Your task to perform on an android device: Empty the shopping cart on walmart.com. Search for "razer deathadder" on walmart.com, select the first entry, add it to the cart, then select checkout. Image 0: 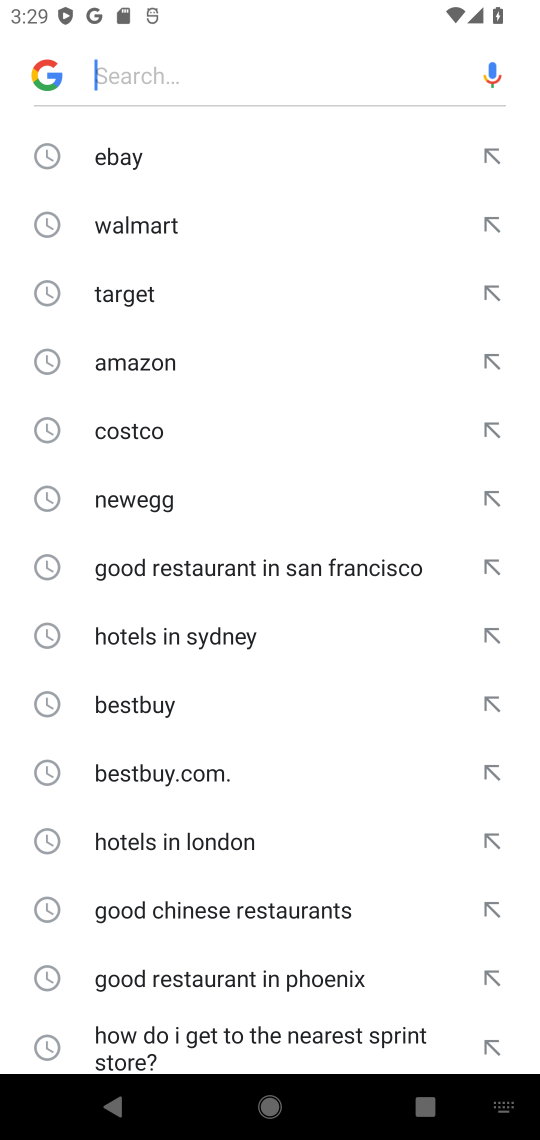
Step 0: press home button
Your task to perform on an android device: Empty the shopping cart on walmart.com. Search for "razer deathadder" on walmart.com, select the first entry, add it to the cart, then select checkout. Image 1: 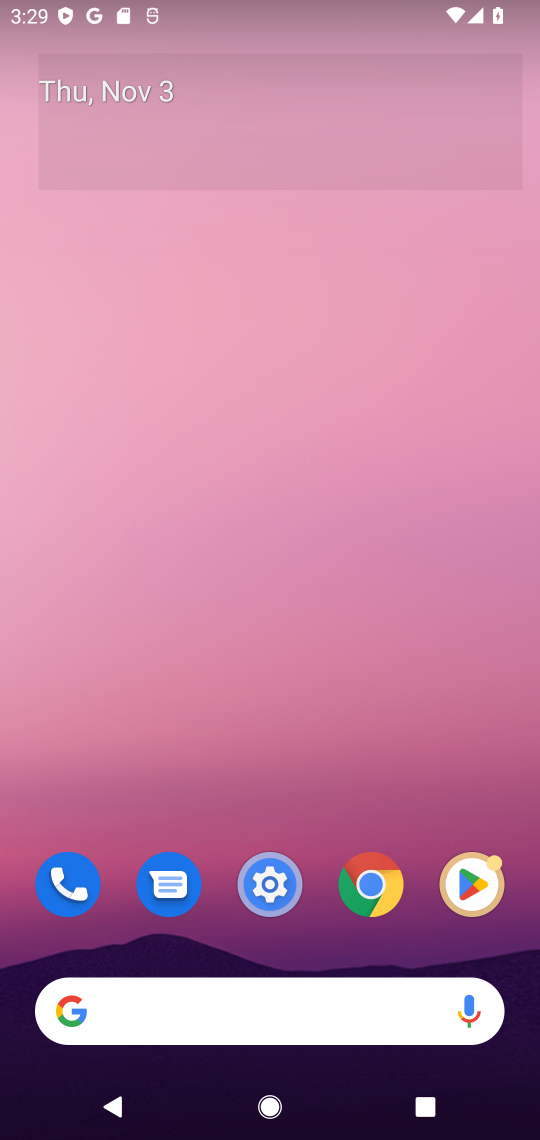
Step 1: click (117, 1009)
Your task to perform on an android device: Empty the shopping cart on walmart.com. Search for "razer deathadder" on walmart.com, select the first entry, add it to the cart, then select checkout. Image 2: 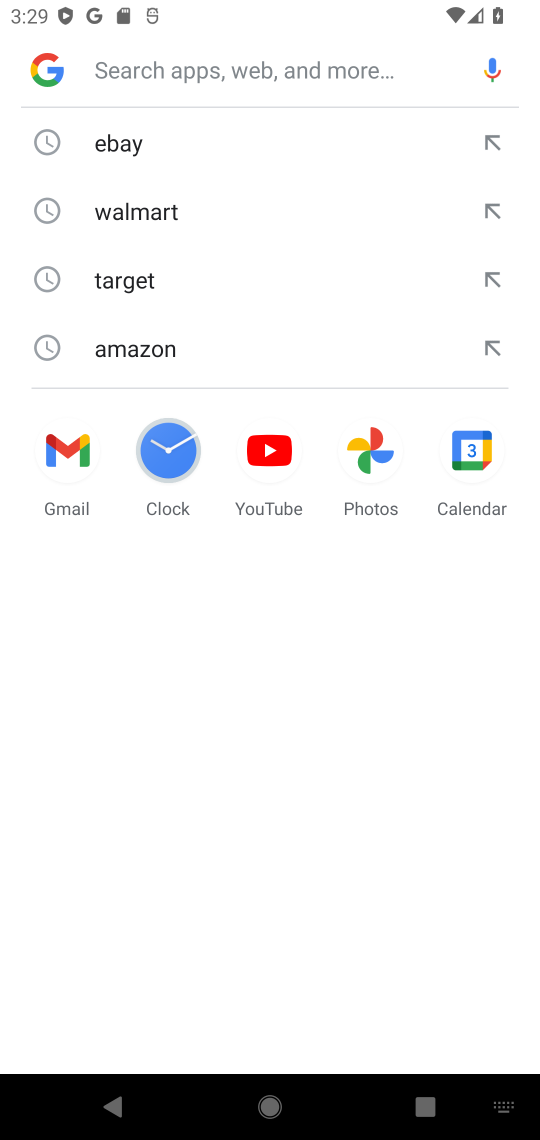
Step 2: type "walmart.com"
Your task to perform on an android device: Empty the shopping cart on walmart.com. Search for "razer deathadder" on walmart.com, select the first entry, add it to the cart, then select checkout. Image 3: 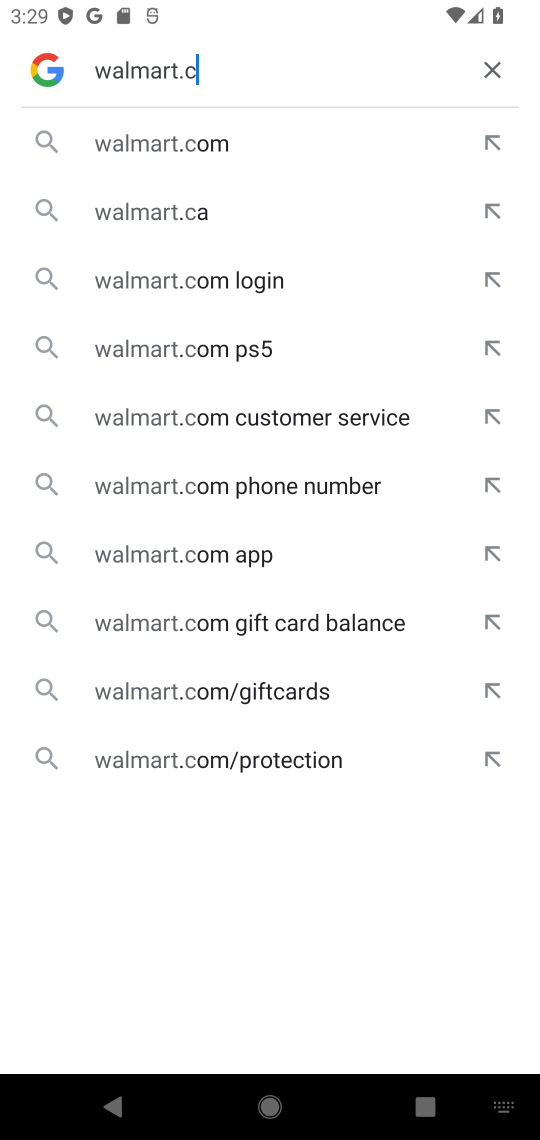
Step 3: press enter
Your task to perform on an android device: Empty the shopping cart on walmart.com. Search for "razer deathadder" on walmart.com, select the first entry, add it to the cart, then select checkout. Image 4: 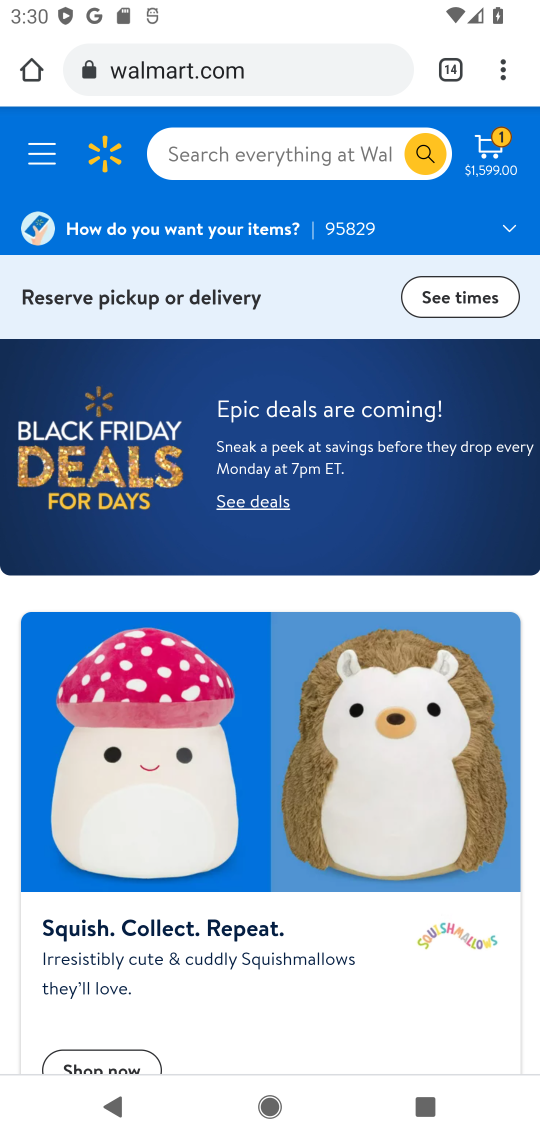
Step 4: click (492, 145)
Your task to perform on an android device: Empty the shopping cart on walmart.com. Search for "razer deathadder" on walmart.com, select the first entry, add it to the cart, then select checkout. Image 5: 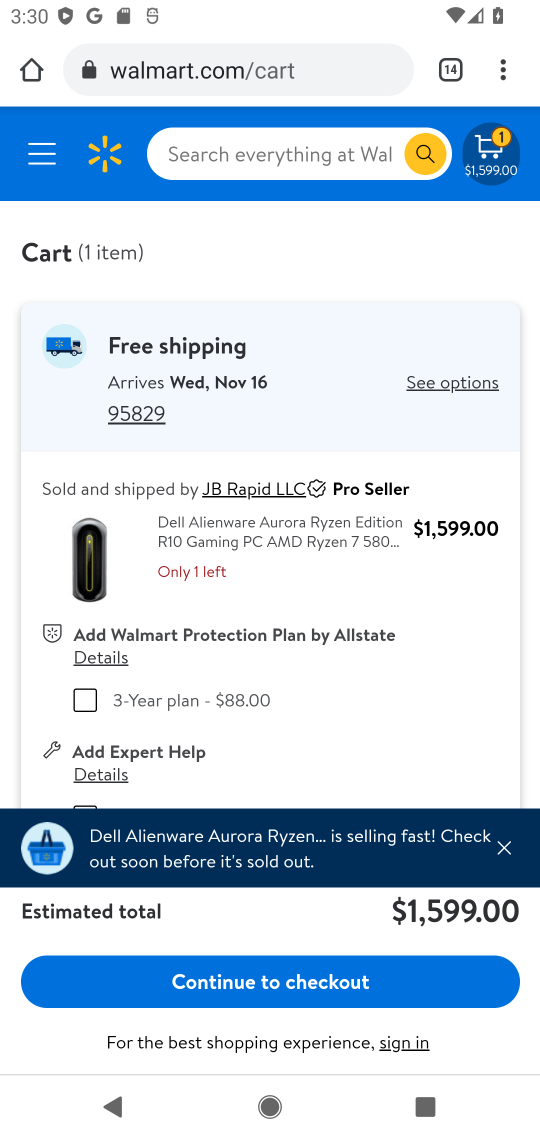
Step 5: drag from (409, 701) to (375, 355)
Your task to perform on an android device: Empty the shopping cart on walmart.com. Search for "razer deathadder" on walmart.com, select the first entry, add it to the cart, then select checkout. Image 6: 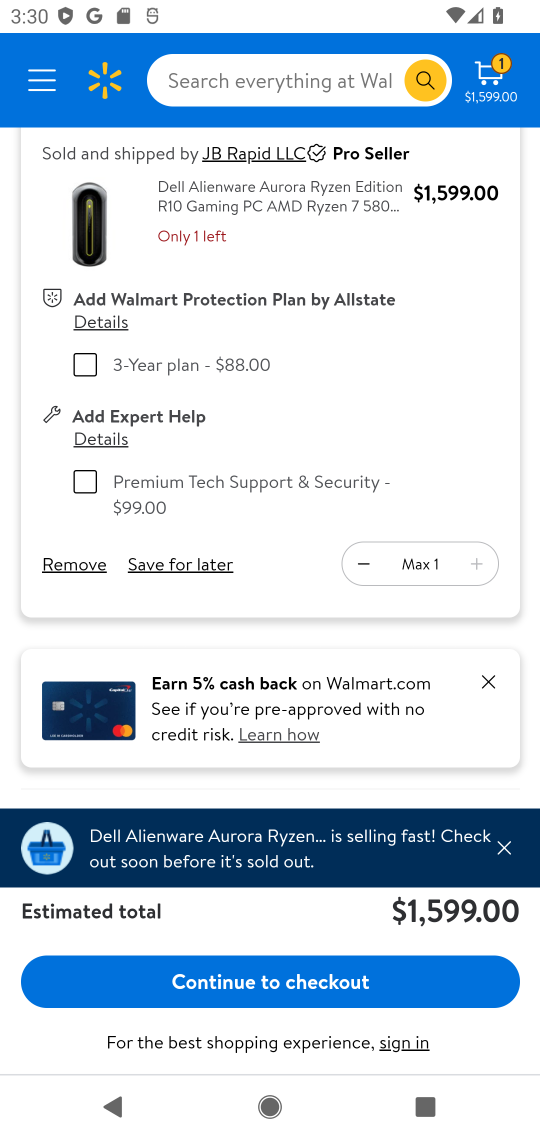
Step 6: click (67, 567)
Your task to perform on an android device: Empty the shopping cart on walmart.com. Search for "razer deathadder" on walmart.com, select the first entry, add it to the cart, then select checkout. Image 7: 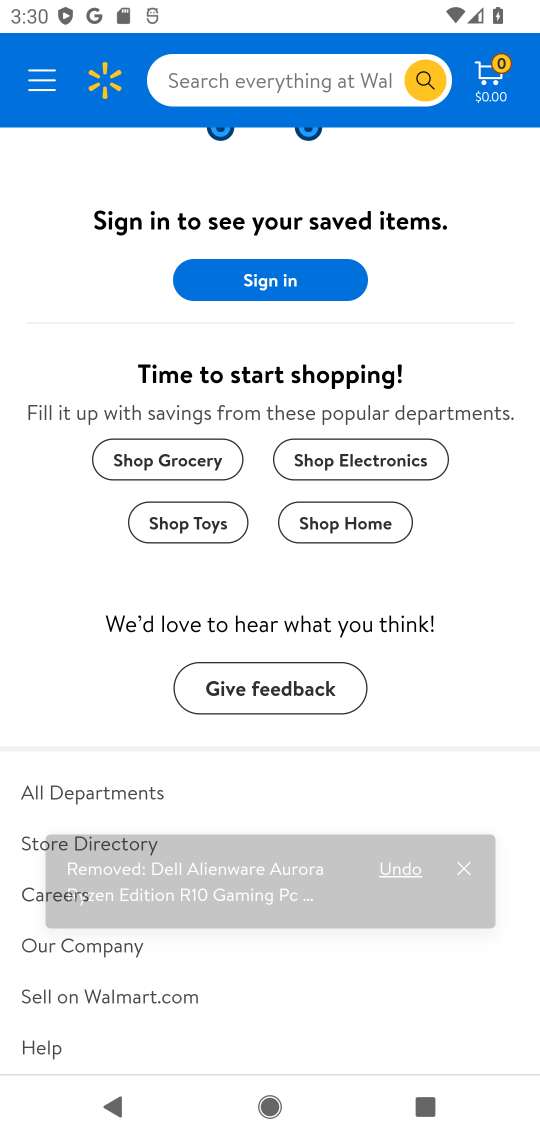
Step 7: click (220, 81)
Your task to perform on an android device: Empty the shopping cart on walmart.com. Search for "razer deathadder" on walmart.com, select the first entry, add it to the cart, then select checkout. Image 8: 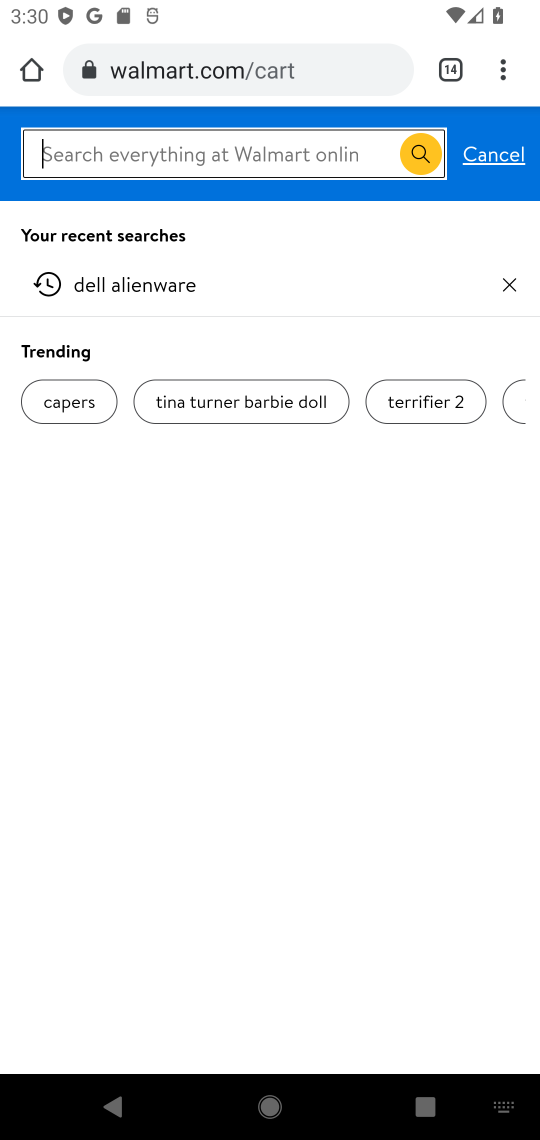
Step 8: type "razer deathadder"
Your task to perform on an android device: Empty the shopping cart on walmart.com. Search for "razer deathadder" on walmart.com, select the first entry, add it to the cart, then select checkout. Image 9: 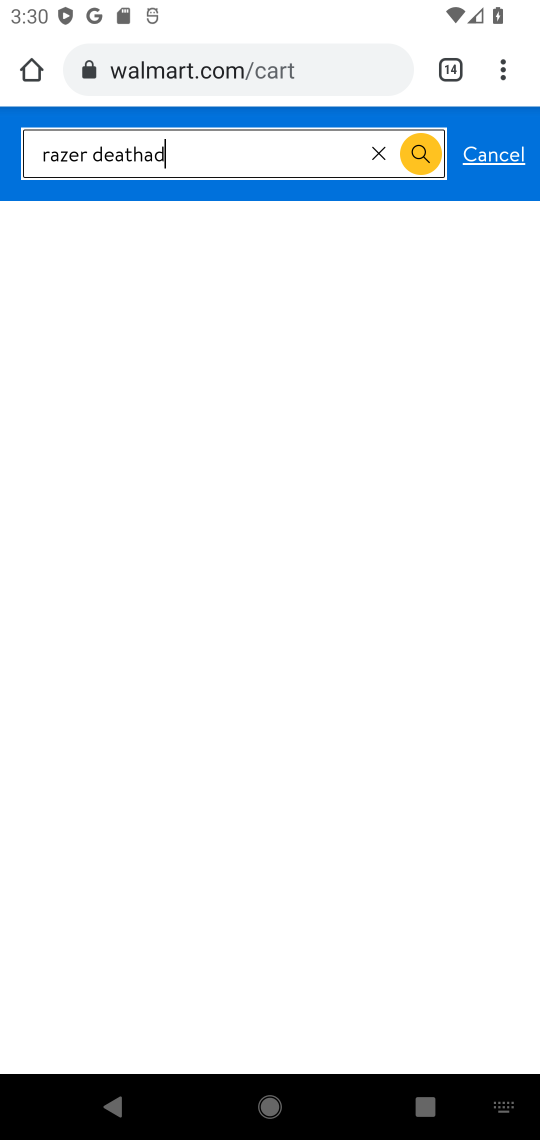
Step 9: press enter
Your task to perform on an android device: Empty the shopping cart on walmart.com. Search for "razer deathadder" on walmart.com, select the first entry, add it to the cart, then select checkout. Image 10: 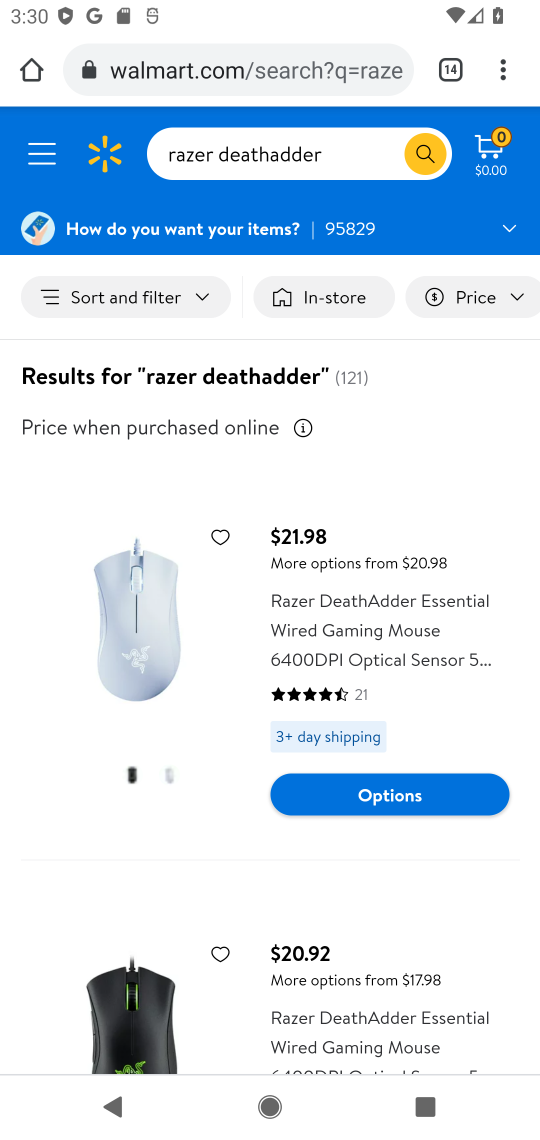
Step 10: drag from (375, 926) to (418, 524)
Your task to perform on an android device: Empty the shopping cart on walmart.com. Search for "razer deathadder" on walmart.com, select the first entry, add it to the cart, then select checkout. Image 11: 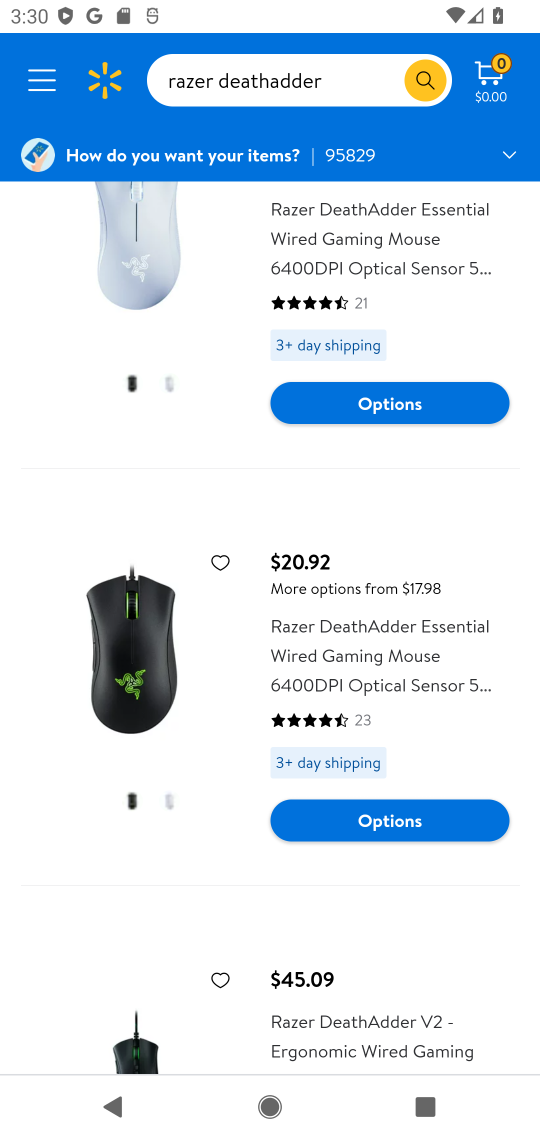
Step 11: click (383, 227)
Your task to perform on an android device: Empty the shopping cart on walmart.com. Search for "razer deathadder" on walmart.com, select the first entry, add it to the cart, then select checkout. Image 12: 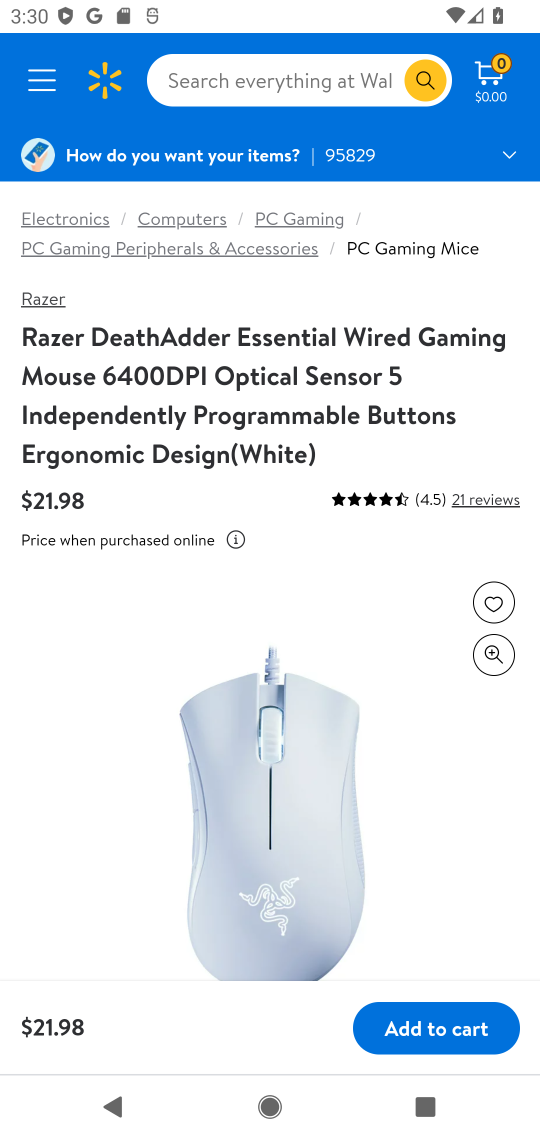
Step 12: click (435, 1028)
Your task to perform on an android device: Empty the shopping cart on walmart.com. Search for "razer deathadder" on walmart.com, select the first entry, add it to the cart, then select checkout. Image 13: 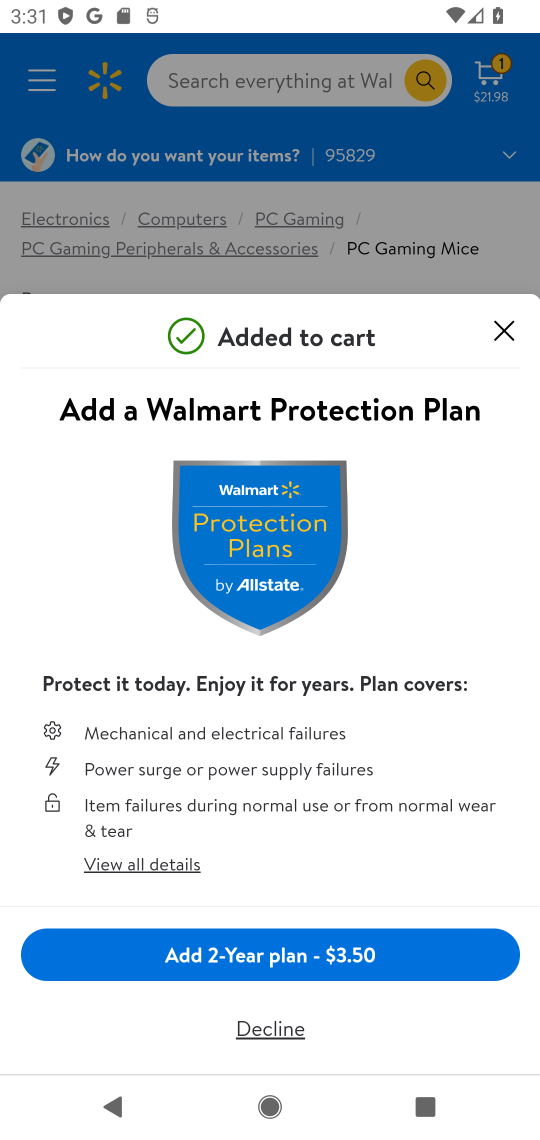
Step 13: click (264, 1033)
Your task to perform on an android device: Empty the shopping cart on walmart.com. Search for "razer deathadder" on walmart.com, select the first entry, add it to the cart, then select checkout. Image 14: 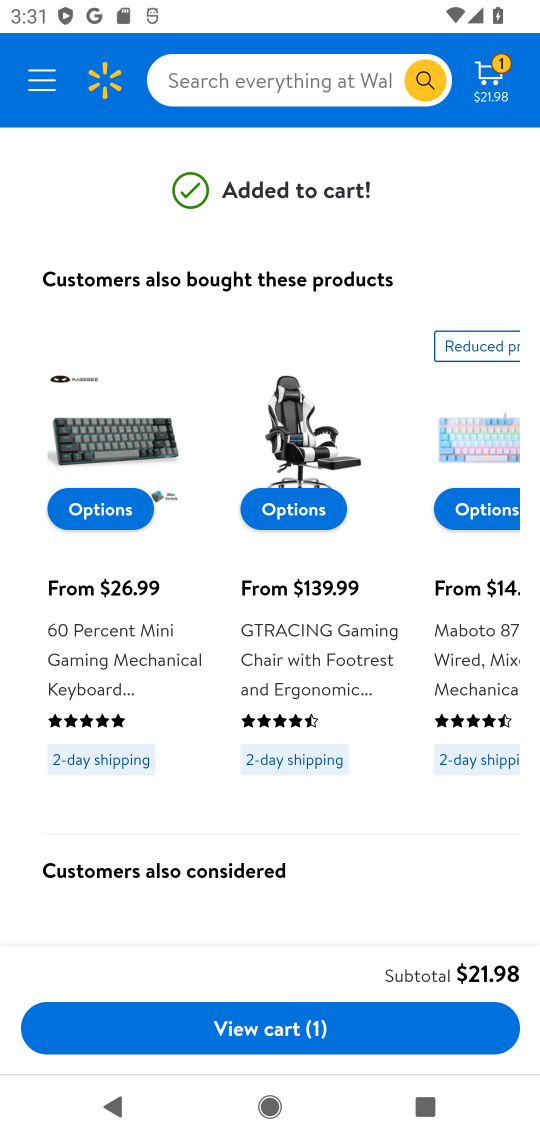
Step 14: click (321, 1042)
Your task to perform on an android device: Empty the shopping cart on walmart.com. Search for "razer deathadder" on walmart.com, select the first entry, add it to the cart, then select checkout. Image 15: 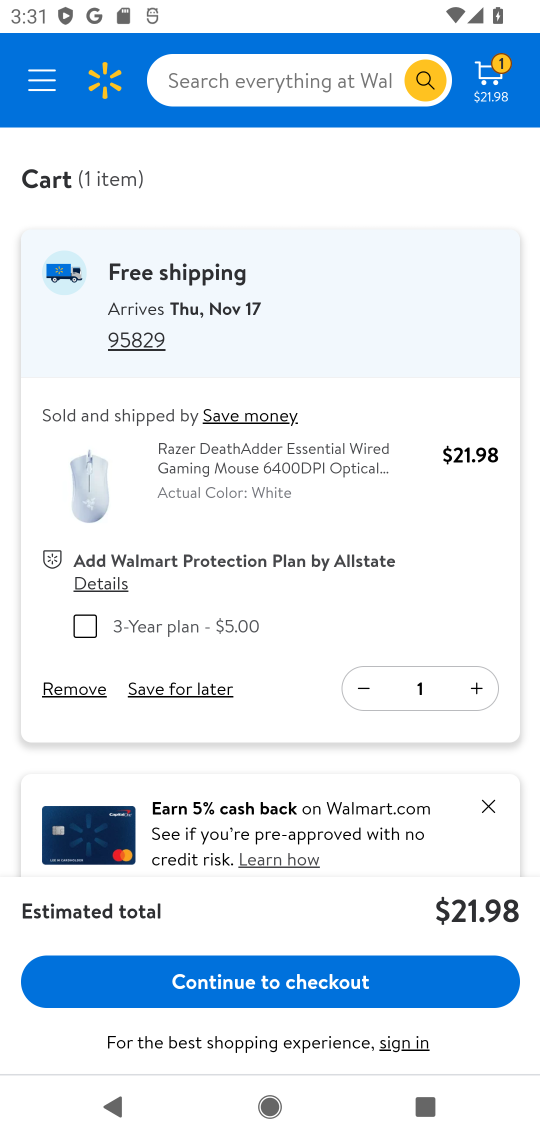
Step 15: click (304, 987)
Your task to perform on an android device: Empty the shopping cart on walmart.com. Search for "razer deathadder" on walmart.com, select the first entry, add it to the cart, then select checkout. Image 16: 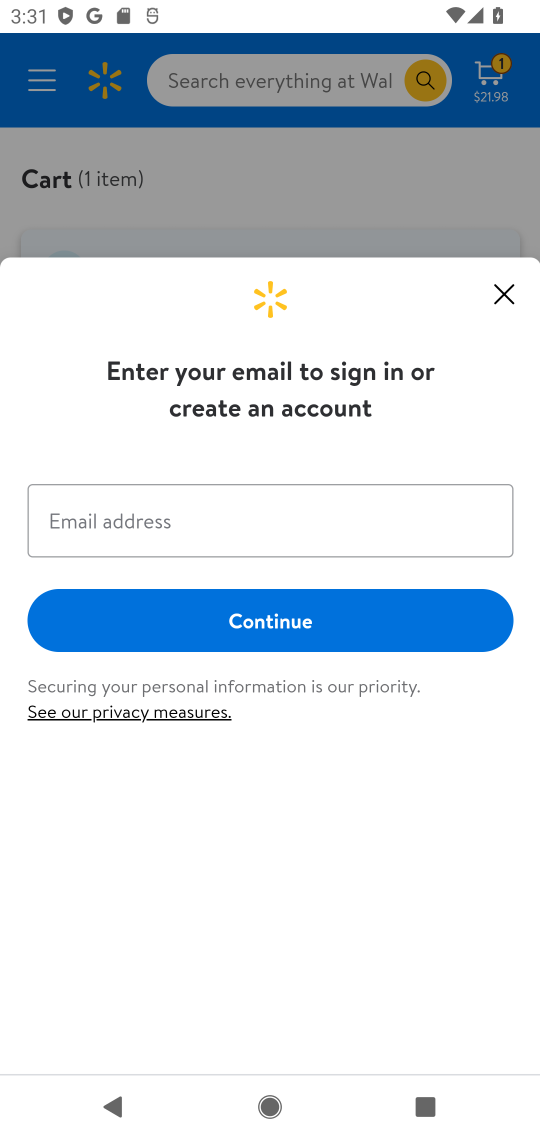
Step 16: task complete